Your task to perform on an android device: toggle translation in the chrome app Image 0: 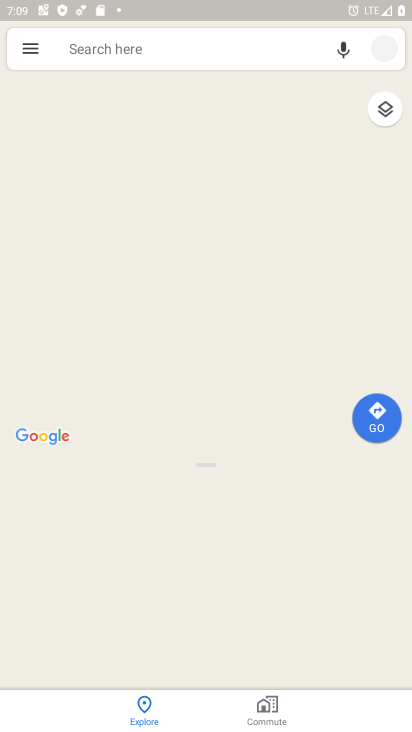
Step 0: press home button
Your task to perform on an android device: toggle translation in the chrome app Image 1: 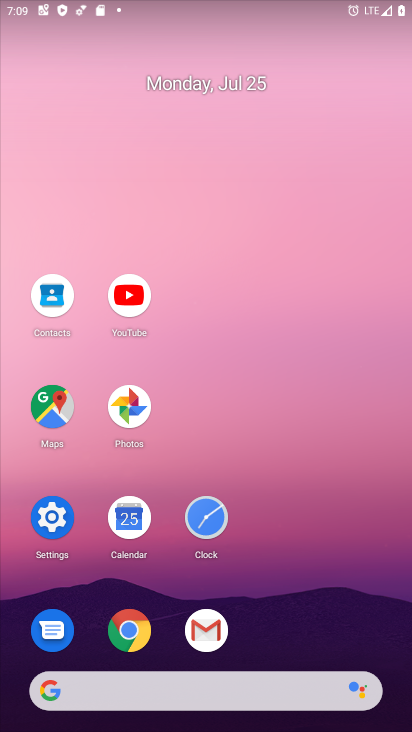
Step 1: click (129, 629)
Your task to perform on an android device: toggle translation in the chrome app Image 2: 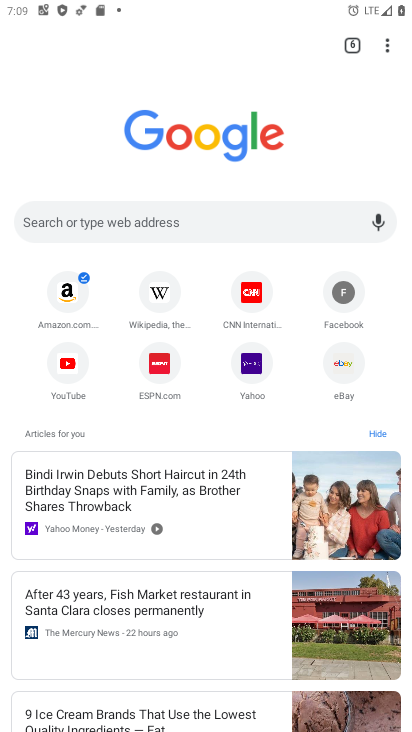
Step 2: click (382, 40)
Your task to perform on an android device: toggle translation in the chrome app Image 3: 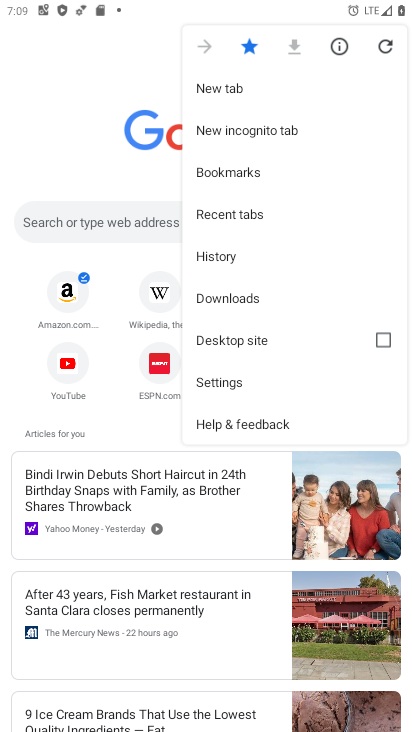
Step 3: click (233, 379)
Your task to perform on an android device: toggle translation in the chrome app Image 4: 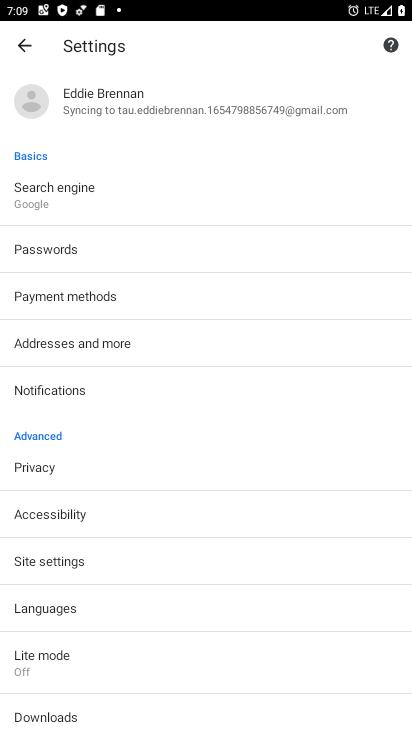
Step 4: click (54, 609)
Your task to perform on an android device: toggle translation in the chrome app Image 5: 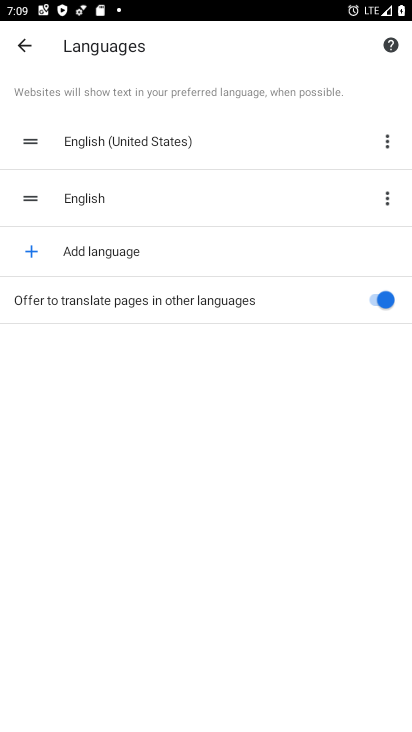
Step 5: click (382, 302)
Your task to perform on an android device: toggle translation in the chrome app Image 6: 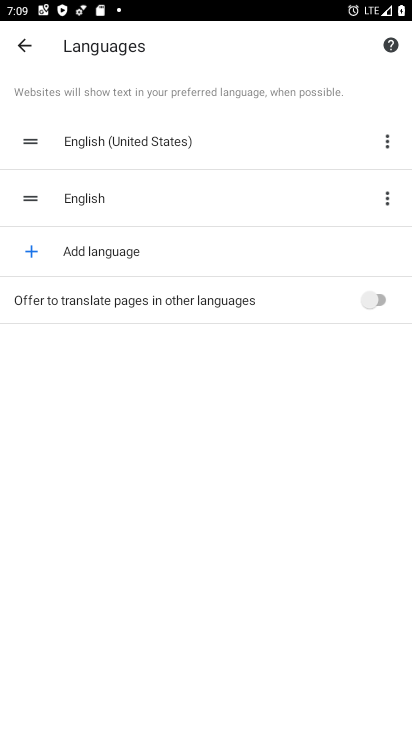
Step 6: task complete